Your task to perform on an android device: Open the map Image 0: 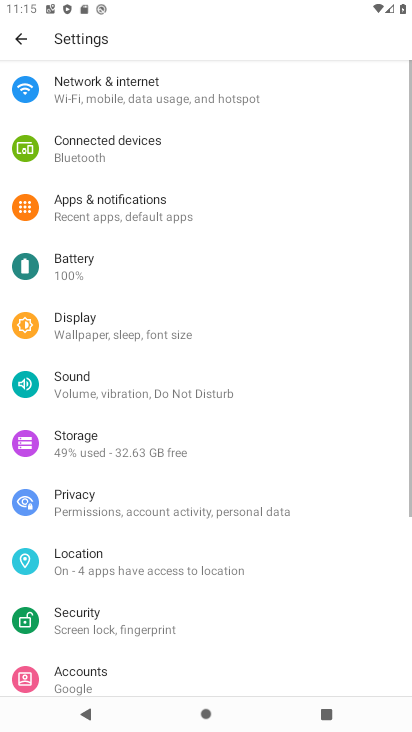
Step 0: press home button
Your task to perform on an android device: Open the map Image 1: 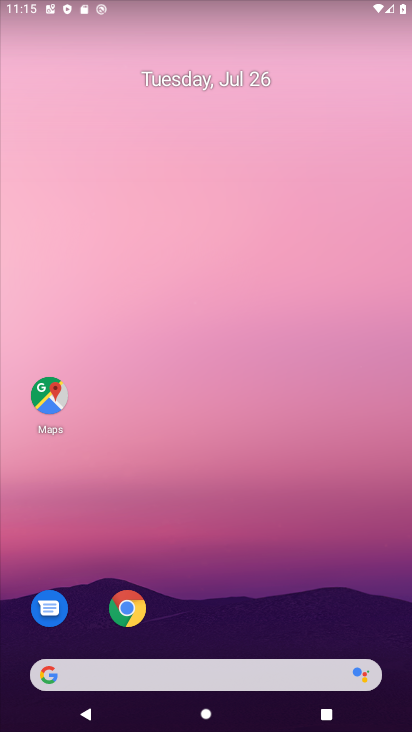
Step 1: click (45, 405)
Your task to perform on an android device: Open the map Image 2: 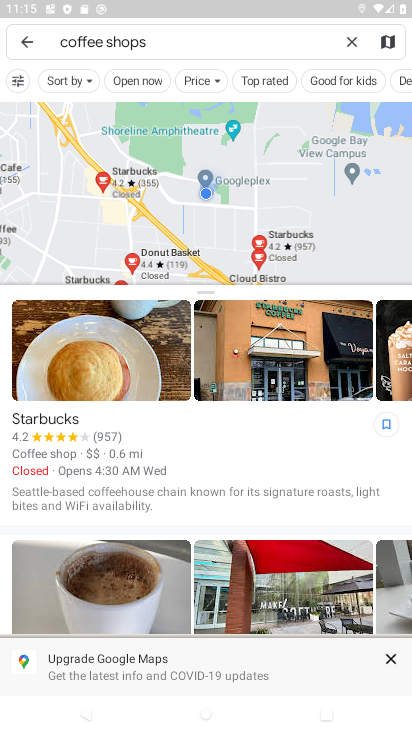
Step 2: task complete